Your task to perform on an android device: Go to location settings Image 0: 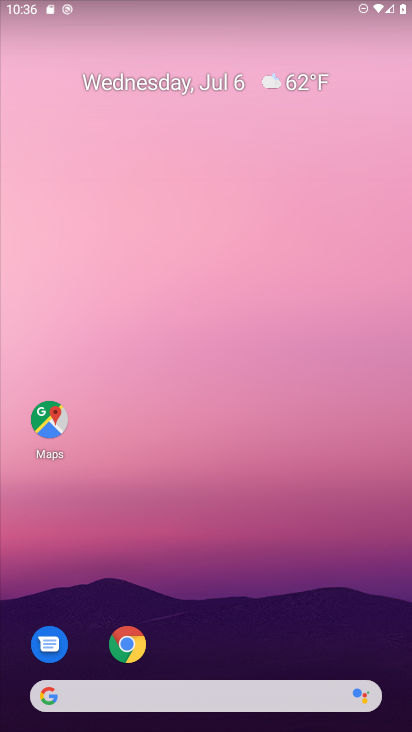
Step 0: drag from (239, 381) to (215, 227)
Your task to perform on an android device: Go to location settings Image 1: 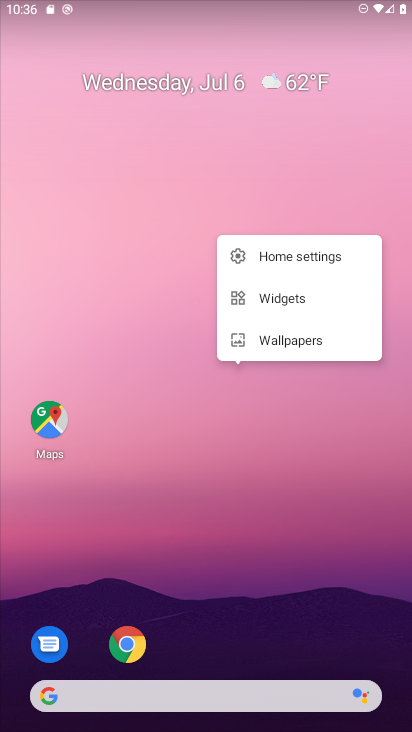
Step 1: drag from (223, 658) to (139, 43)
Your task to perform on an android device: Go to location settings Image 2: 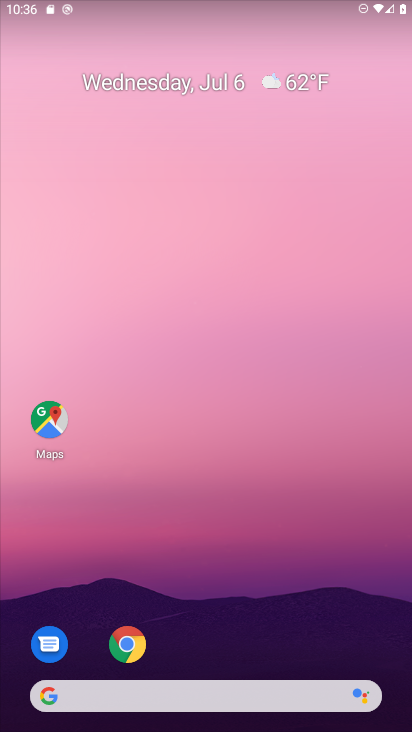
Step 2: drag from (234, 609) to (138, 222)
Your task to perform on an android device: Go to location settings Image 3: 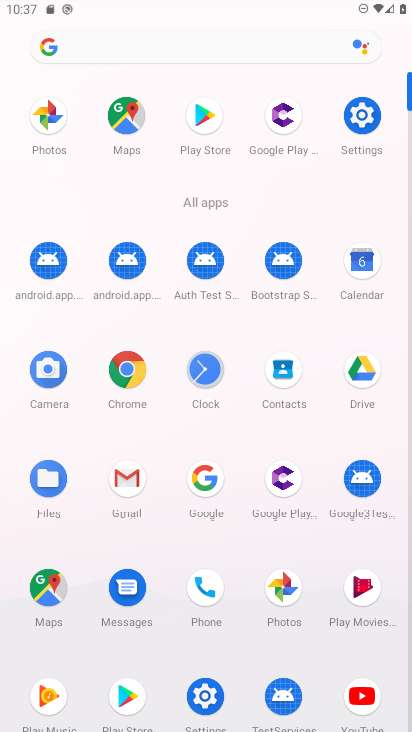
Step 3: click (358, 121)
Your task to perform on an android device: Go to location settings Image 4: 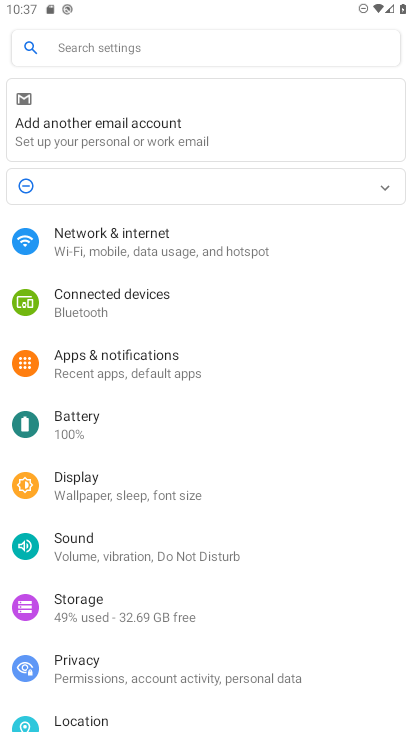
Step 4: click (87, 723)
Your task to perform on an android device: Go to location settings Image 5: 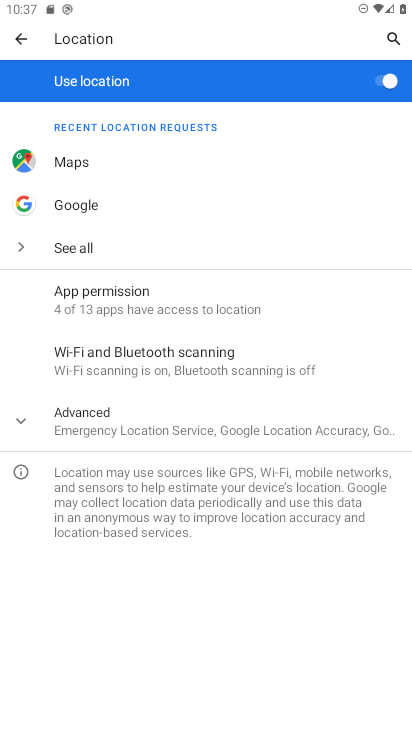
Step 5: click (14, 426)
Your task to perform on an android device: Go to location settings Image 6: 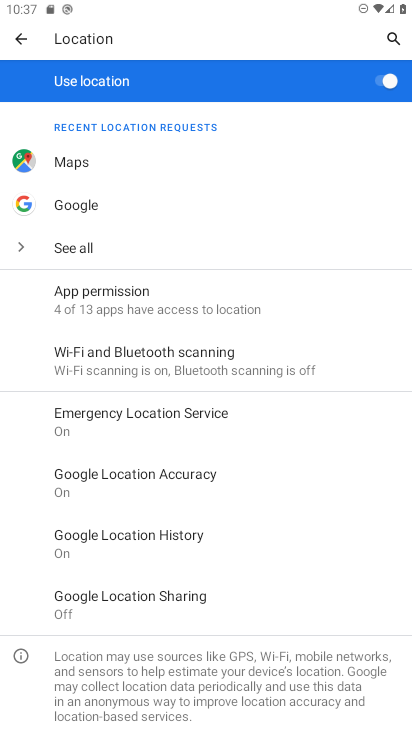
Step 6: task complete